Your task to perform on an android device: turn on airplane mode Image 0: 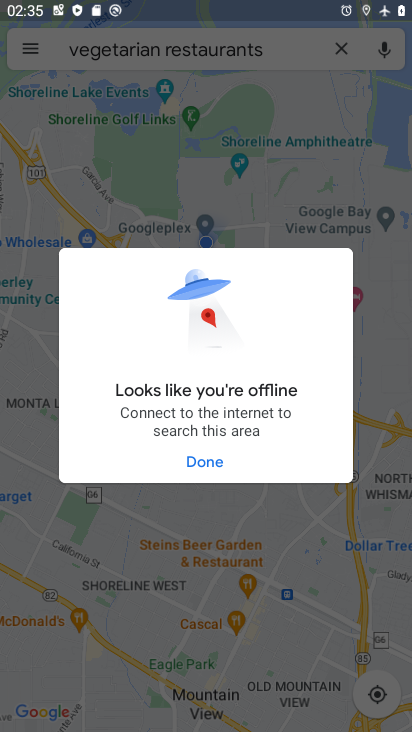
Step 0: press home button
Your task to perform on an android device: turn on airplane mode Image 1: 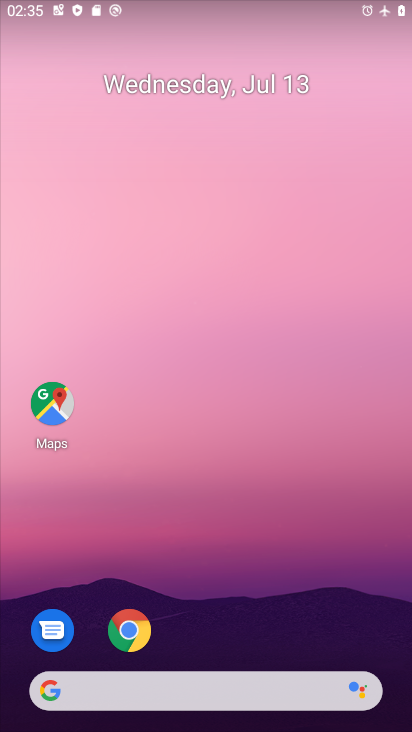
Step 1: drag from (247, 621) to (195, 234)
Your task to perform on an android device: turn on airplane mode Image 2: 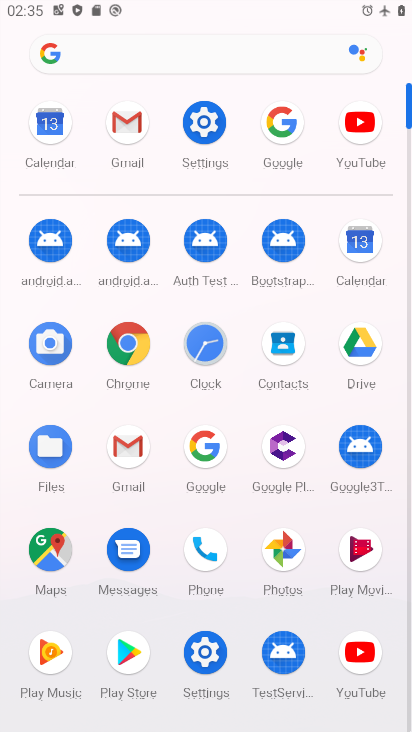
Step 2: click (199, 109)
Your task to perform on an android device: turn on airplane mode Image 3: 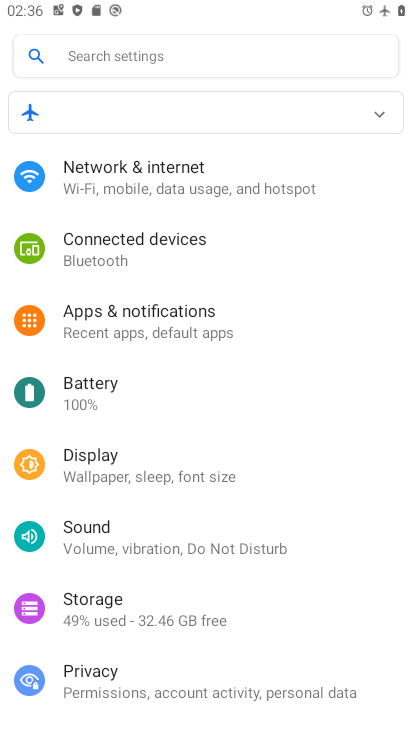
Step 3: click (112, 203)
Your task to perform on an android device: turn on airplane mode Image 4: 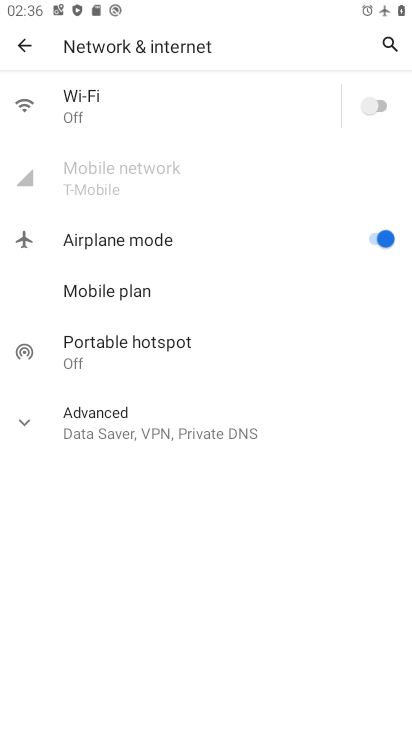
Step 4: task complete